Your task to perform on an android device: search for starred emails in the gmail app Image 0: 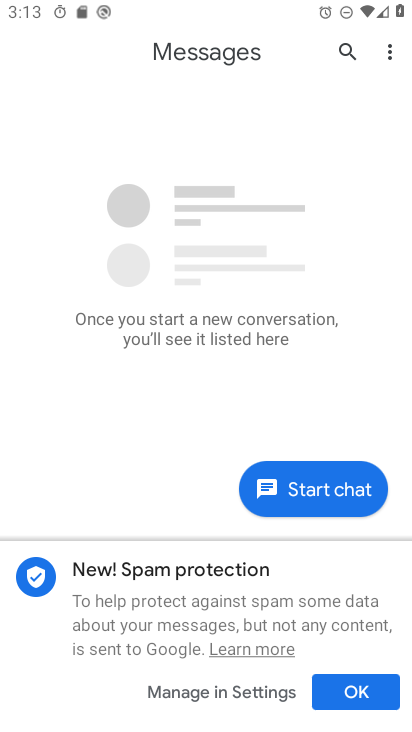
Step 0: press home button
Your task to perform on an android device: search for starred emails in the gmail app Image 1: 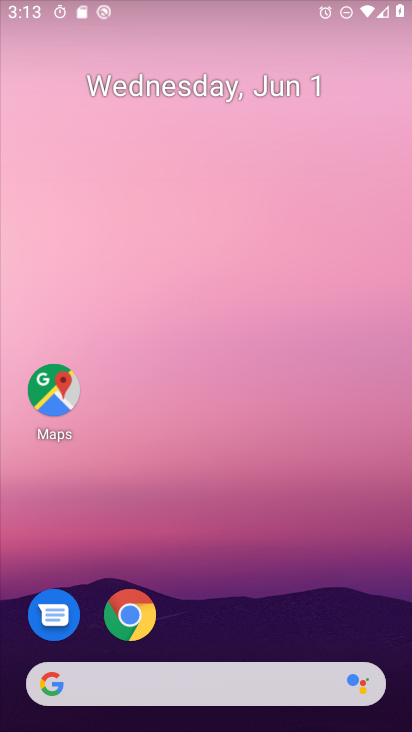
Step 1: drag from (275, 680) to (300, 3)
Your task to perform on an android device: search for starred emails in the gmail app Image 2: 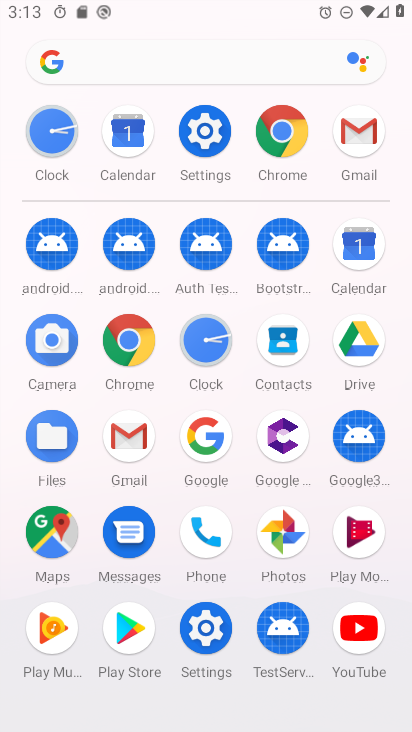
Step 2: click (142, 444)
Your task to perform on an android device: search for starred emails in the gmail app Image 3: 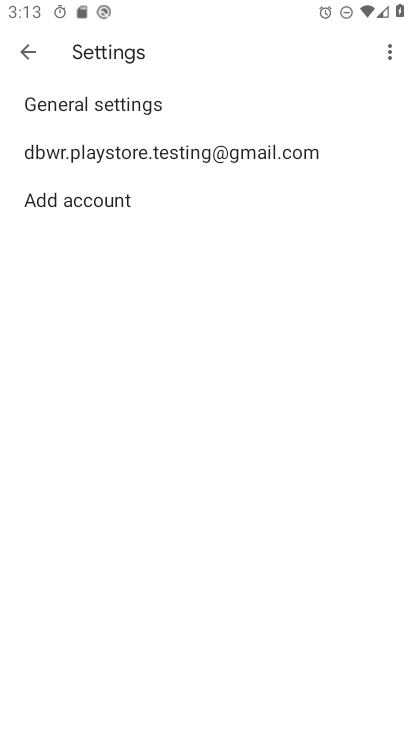
Step 3: press back button
Your task to perform on an android device: search for starred emails in the gmail app Image 4: 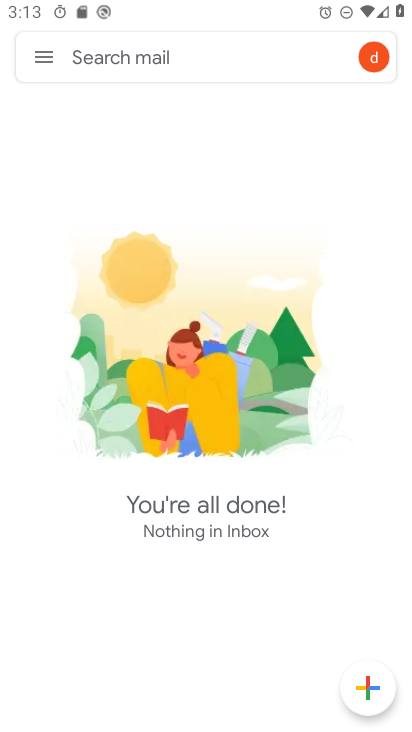
Step 4: click (56, 53)
Your task to perform on an android device: search for starred emails in the gmail app Image 5: 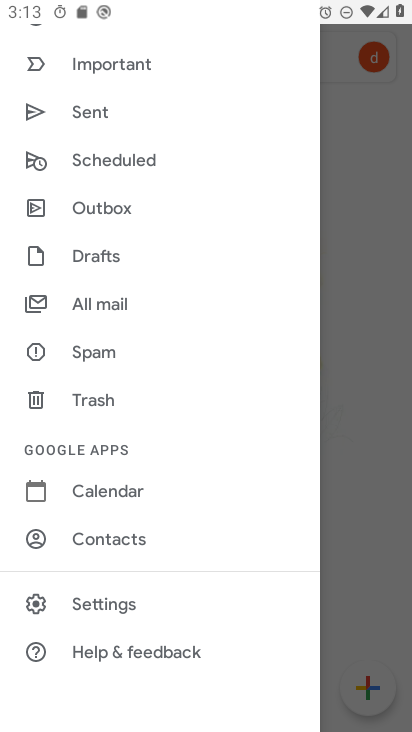
Step 5: drag from (211, 74) to (212, 616)
Your task to perform on an android device: search for starred emails in the gmail app Image 6: 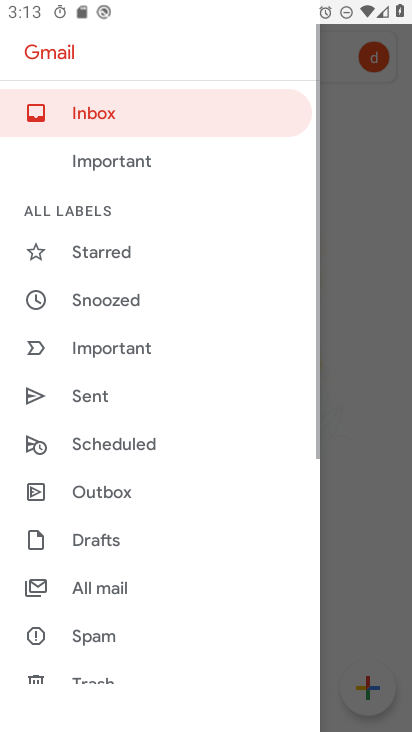
Step 6: click (112, 264)
Your task to perform on an android device: search for starred emails in the gmail app Image 7: 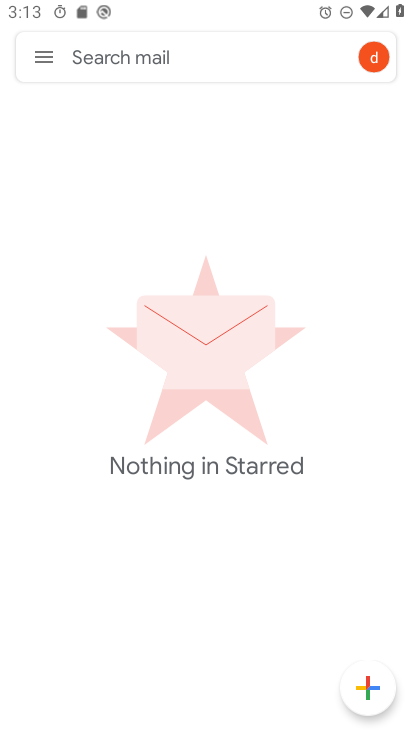
Step 7: task complete